Your task to perform on an android device: empty trash in google photos Image 0: 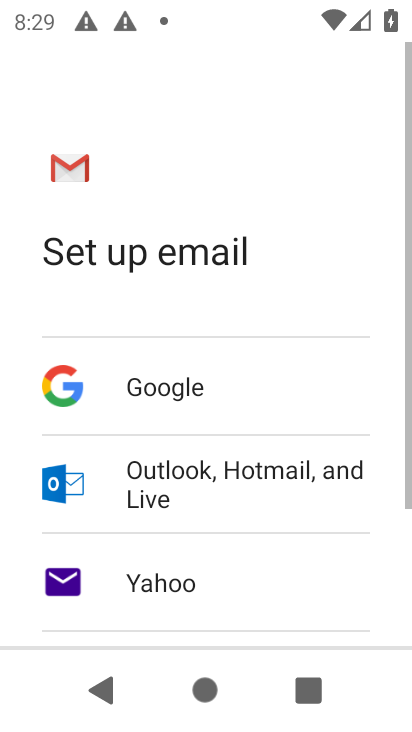
Step 0: press home button
Your task to perform on an android device: empty trash in google photos Image 1: 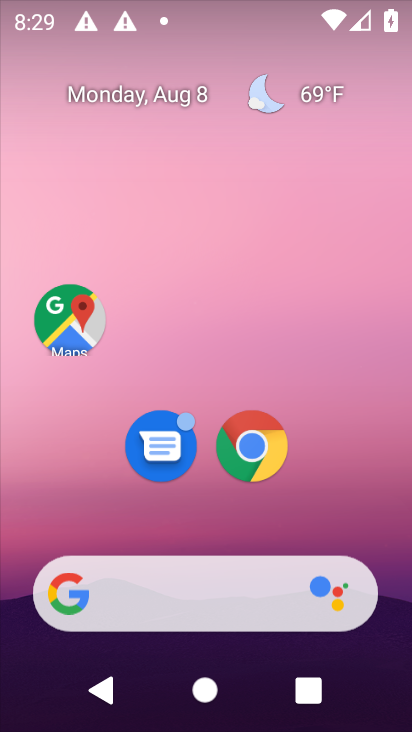
Step 1: drag from (345, 491) to (353, 29)
Your task to perform on an android device: empty trash in google photos Image 2: 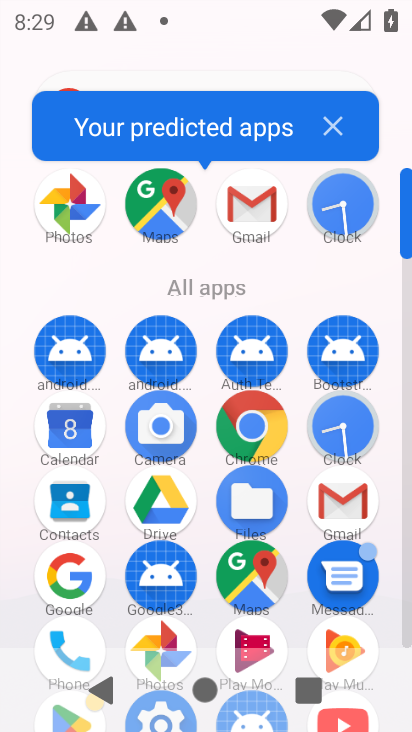
Step 2: click (407, 606)
Your task to perform on an android device: empty trash in google photos Image 3: 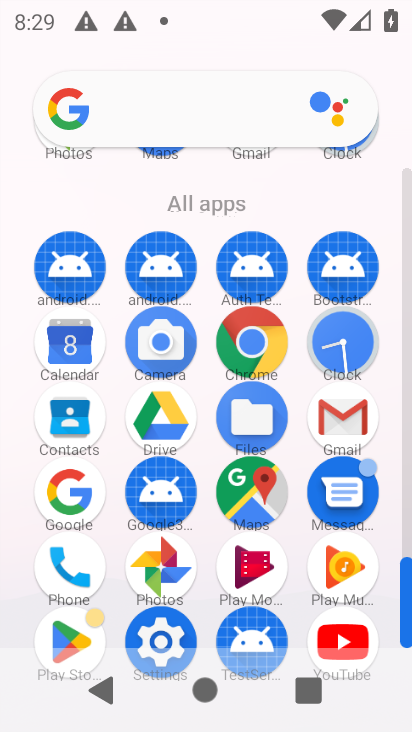
Step 3: click (158, 564)
Your task to perform on an android device: empty trash in google photos Image 4: 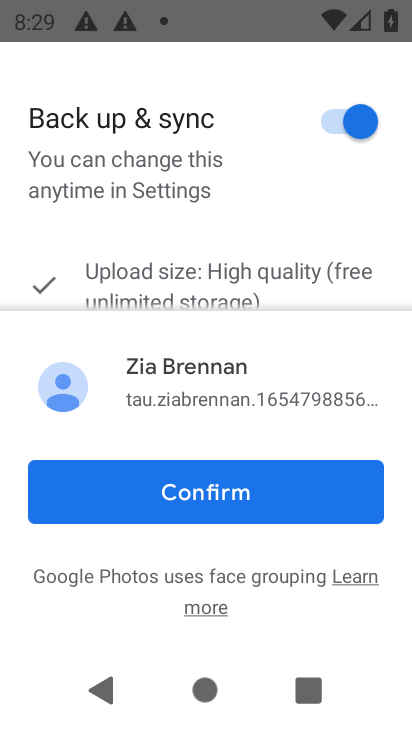
Step 4: click (70, 92)
Your task to perform on an android device: empty trash in google photos Image 5: 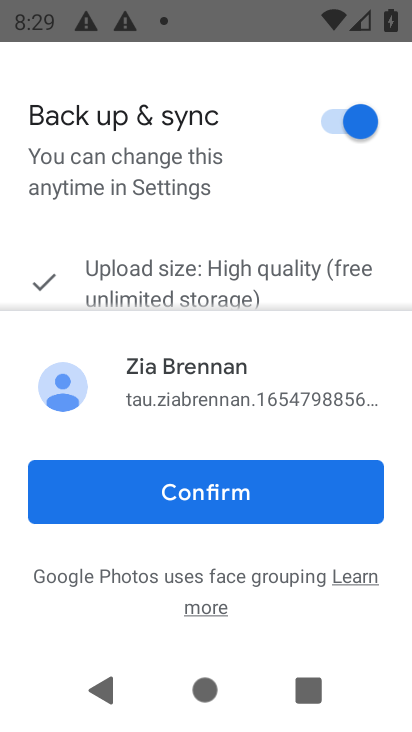
Step 5: click (205, 488)
Your task to perform on an android device: empty trash in google photos Image 6: 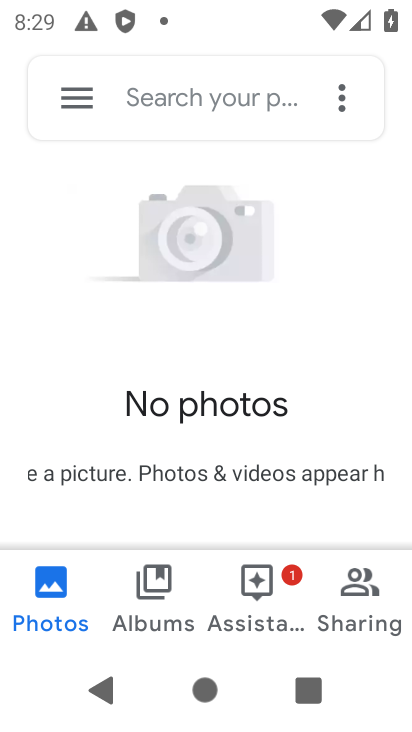
Step 6: click (77, 106)
Your task to perform on an android device: empty trash in google photos Image 7: 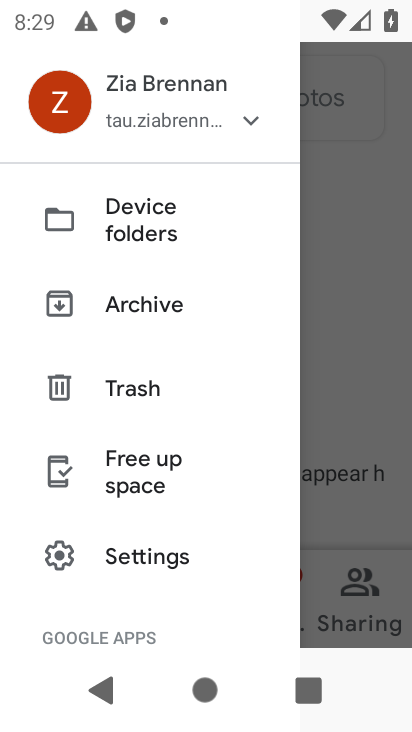
Step 7: click (125, 390)
Your task to perform on an android device: empty trash in google photos Image 8: 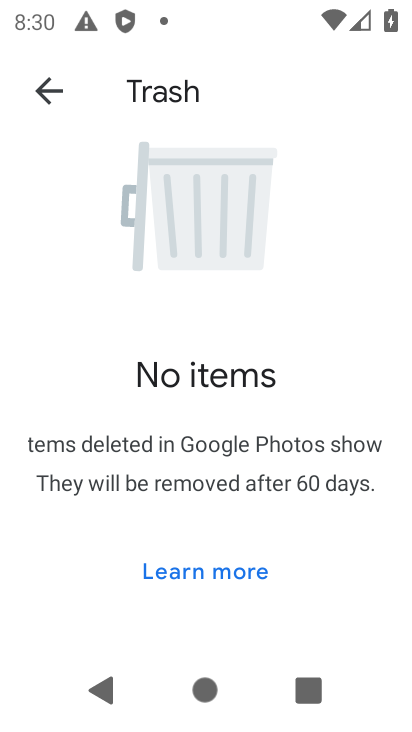
Step 8: task complete